Your task to perform on an android device: check storage Image 0: 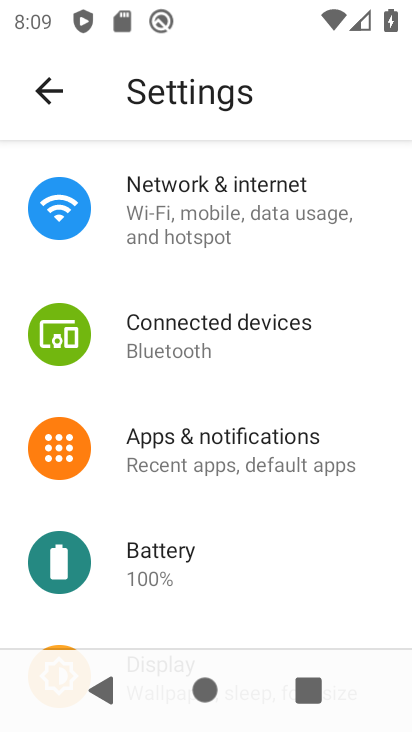
Step 0: drag from (212, 459) to (246, 77)
Your task to perform on an android device: check storage Image 1: 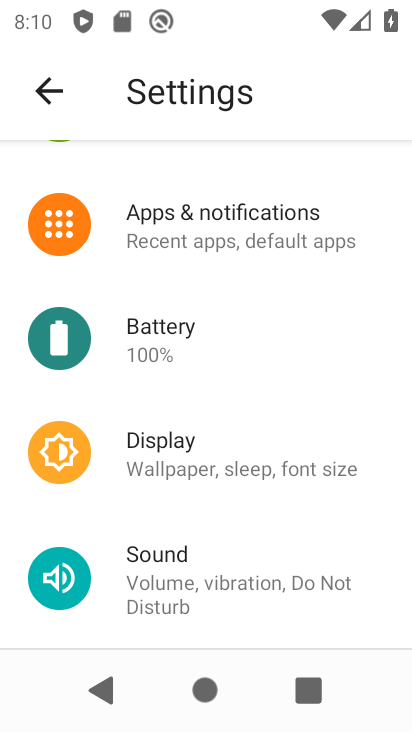
Step 1: drag from (215, 421) to (220, 152)
Your task to perform on an android device: check storage Image 2: 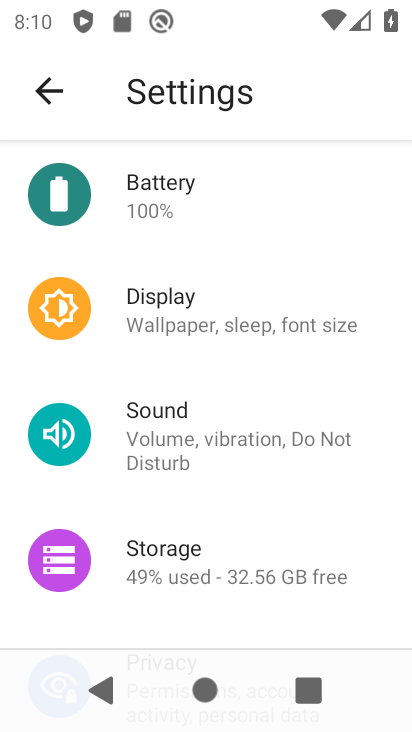
Step 2: drag from (175, 430) to (211, 175)
Your task to perform on an android device: check storage Image 3: 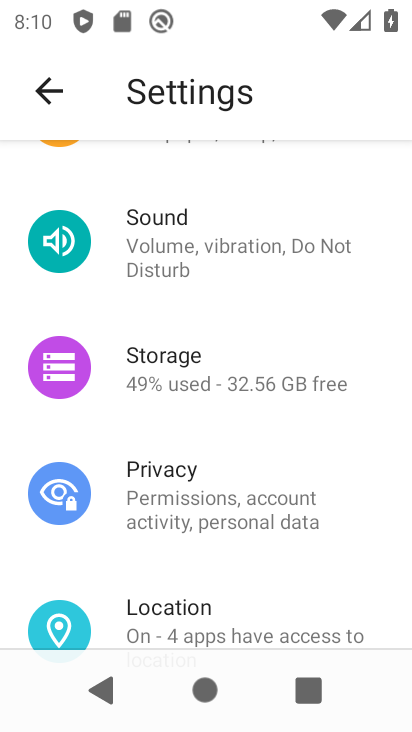
Step 3: drag from (233, 357) to (254, 171)
Your task to perform on an android device: check storage Image 4: 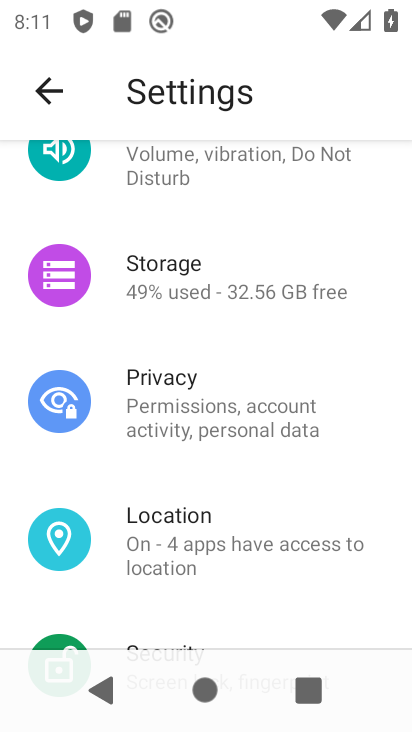
Step 4: click (215, 281)
Your task to perform on an android device: check storage Image 5: 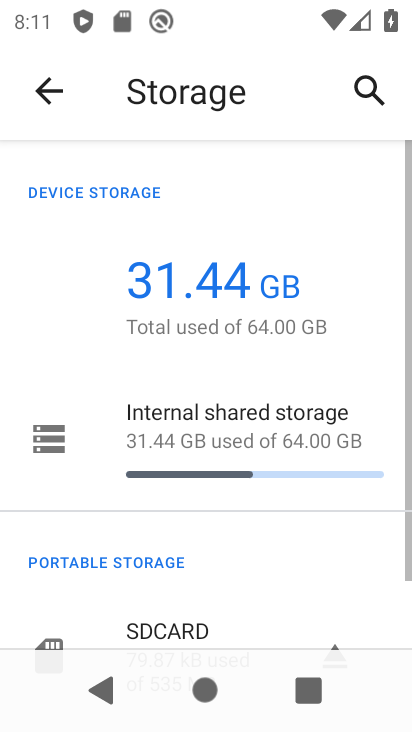
Step 5: click (294, 428)
Your task to perform on an android device: check storage Image 6: 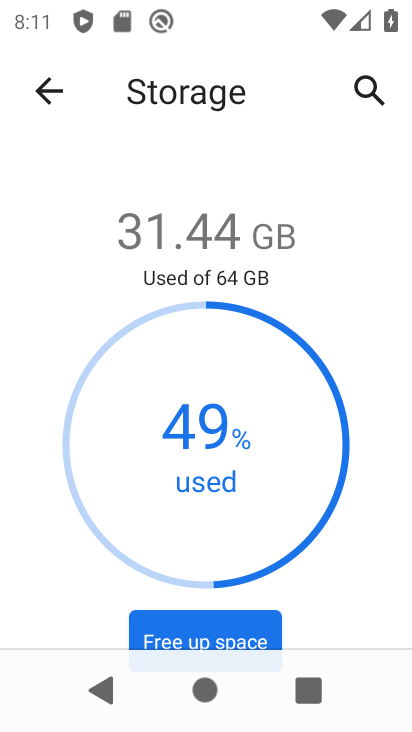
Step 6: task complete